Your task to perform on an android device: Go to accessibility settings Image 0: 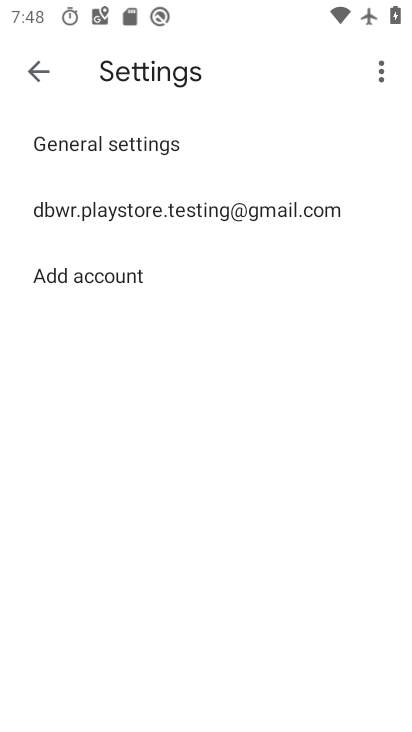
Step 0: press home button
Your task to perform on an android device: Go to accessibility settings Image 1: 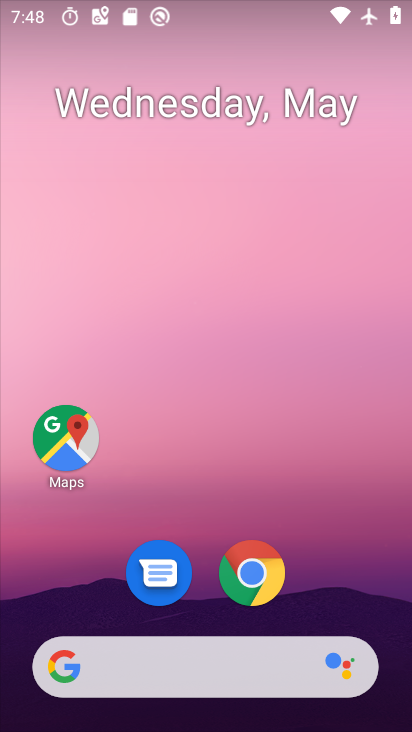
Step 1: drag from (307, 621) to (267, 56)
Your task to perform on an android device: Go to accessibility settings Image 2: 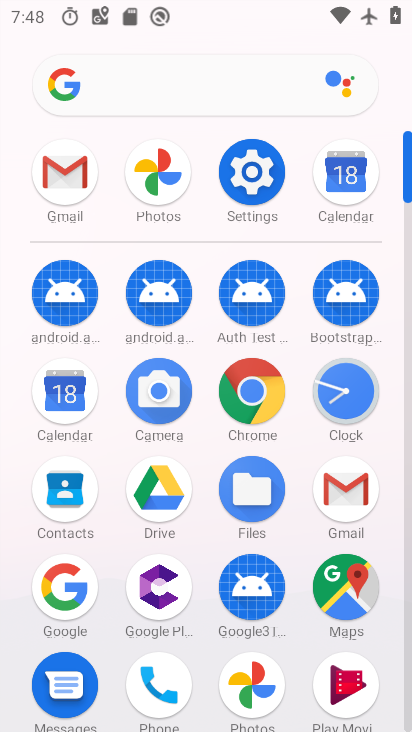
Step 2: click (249, 168)
Your task to perform on an android device: Go to accessibility settings Image 3: 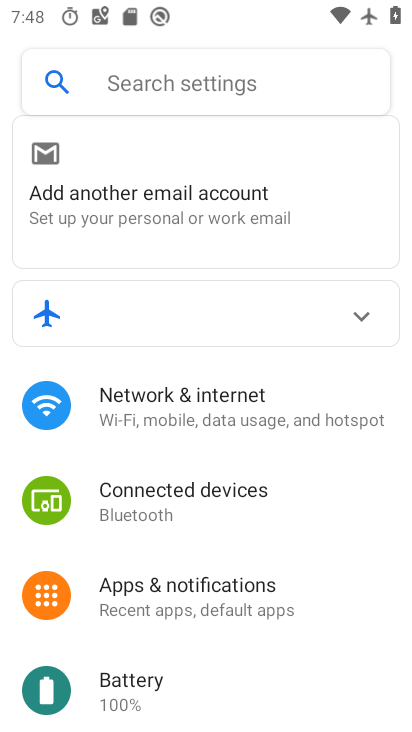
Step 3: drag from (244, 603) to (214, 237)
Your task to perform on an android device: Go to accessibility settings Image 4: 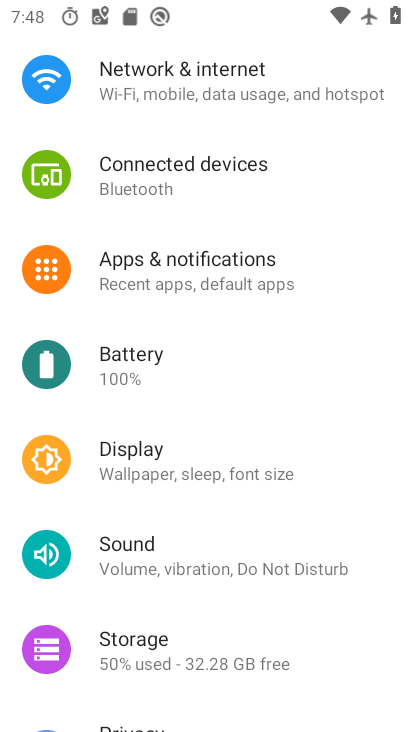
Step 4: drag from (233, 637) to (228, 428)
Your task to perform on an android device: Go to accessibility settings Image 5: 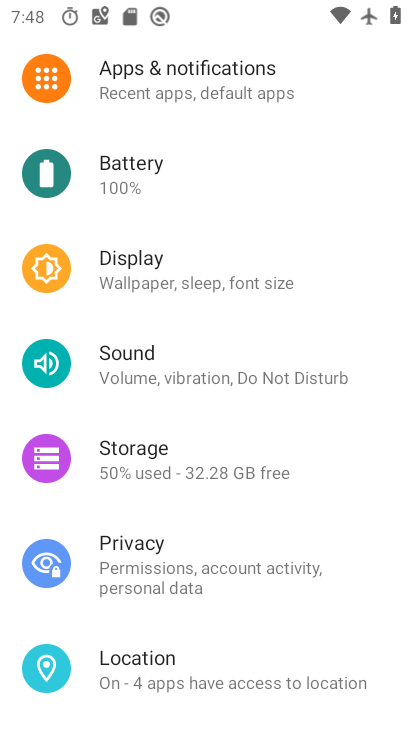
Step 5: drag from (261, 612) to (197, 232)
Your task to perform on an android device: Go to accessibility settings Image 6: 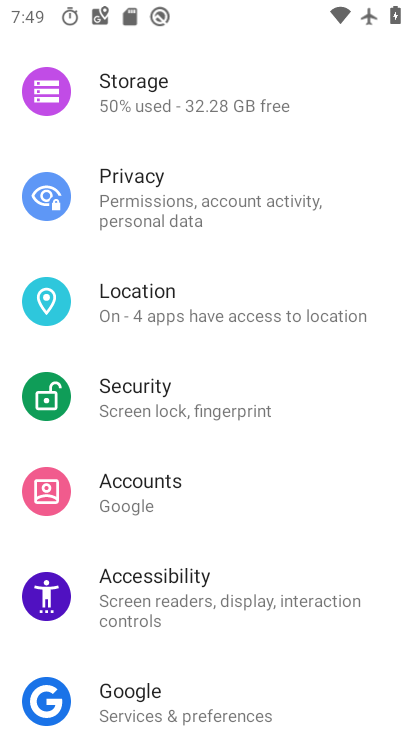
Step 6: click (212, 605)
Your task to perform on an android device: Go to accessibility settings Image 7: 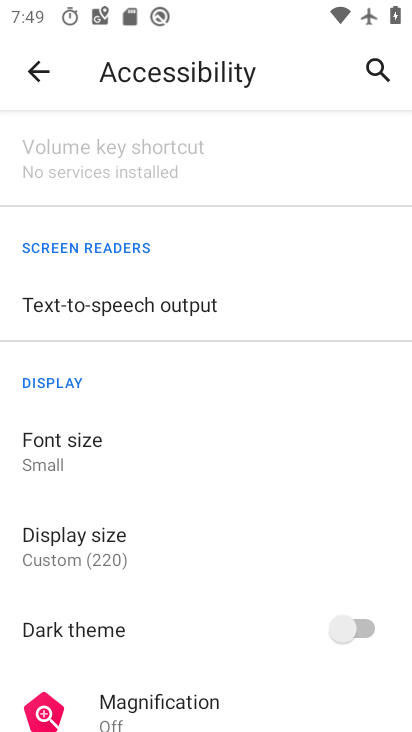
Step 7: task complete